Your task to perform on an android device: snooze an email in the gmail app Image 0: 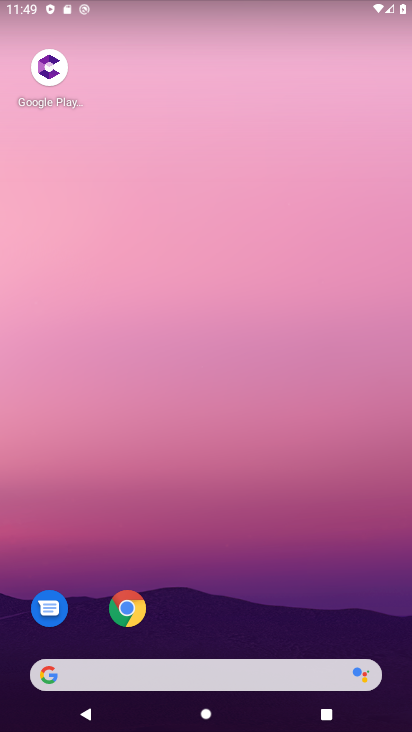
Step 0: drag from (332, 569) to (186, 159)
Your task to perform on an android device: snooze an email in the gmail app Image 1: 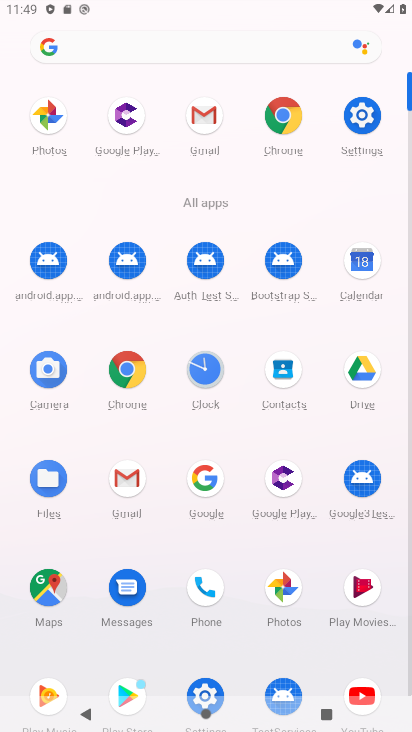
Step 1: click (129, 380)
Your task to perform on an android device: snooze an email in the gmail app Image 2: 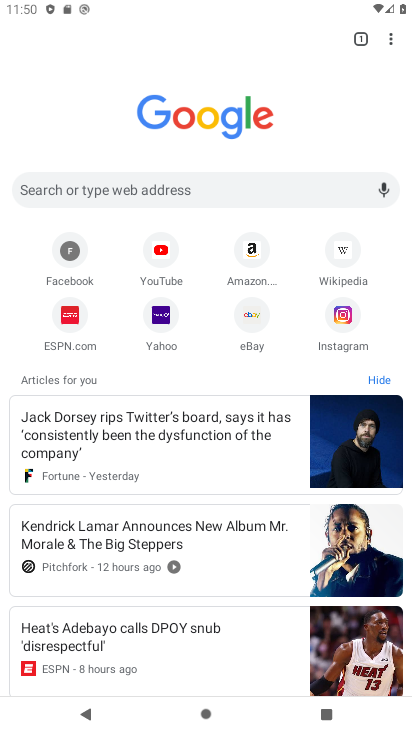
Step 2: press home button
Your task to perform on an android device: snooze an email in the gmail app Image 3: 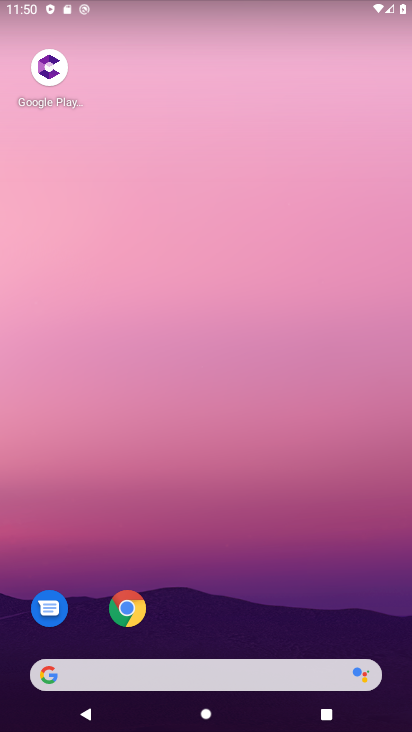
Step 3: drag from (210, 566) to (194, 158)
Your task to perform on an android device: snooze an email in the gmail app Image 4: 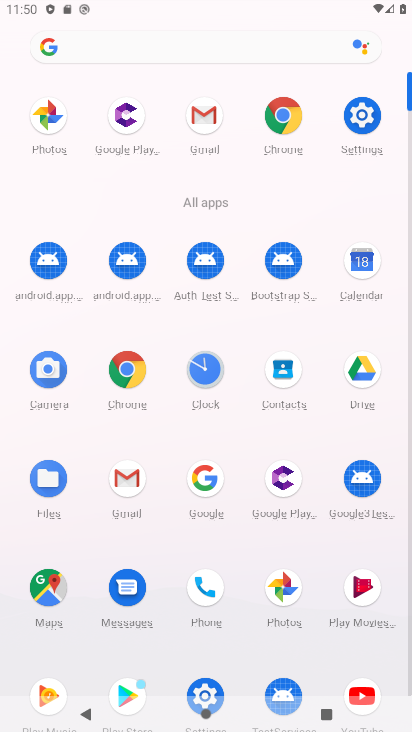
Step 4: click (128, 485)
Your task to perform on an android device: snooze an email in the gmail app Image 5: 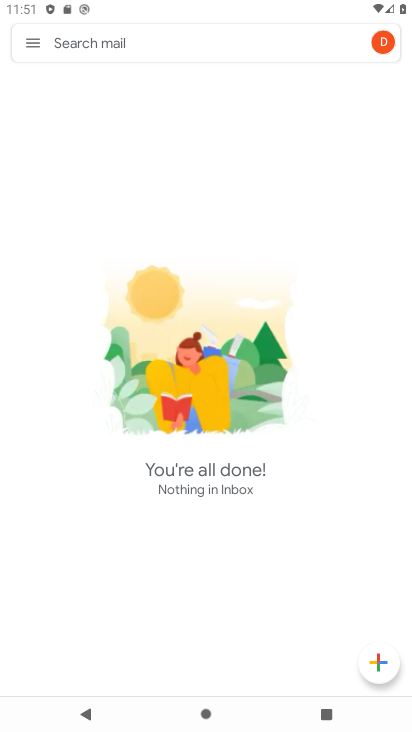
Step 5: click (37, 45)
Your task to perform on an android device: snooze an email in the gmail app Image 6: 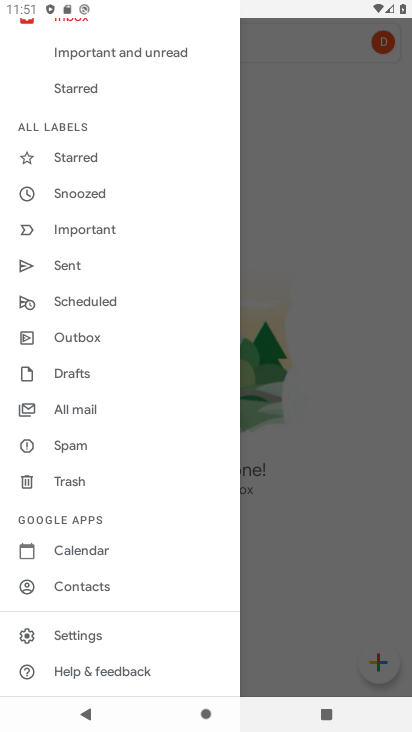
Step 6: click (71, 418)
Your task to perform on an android device: snooze an email in the gmail app Image 7: 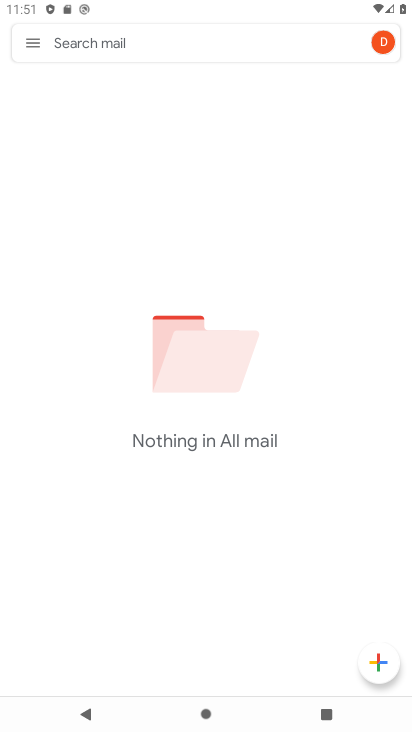
Step 7: task complete